Your task to perform on an android device: turn on javascript in the chrome app Image 0: 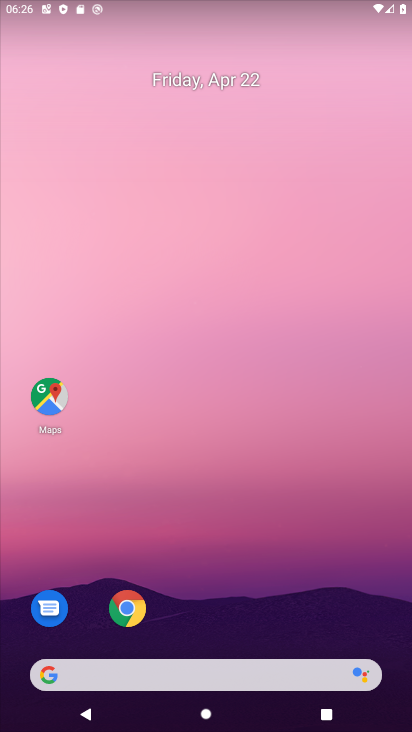
Step 0: click (135, 619)
Your task to perform on an android device: turn on javascript in the chrome app Image 1: 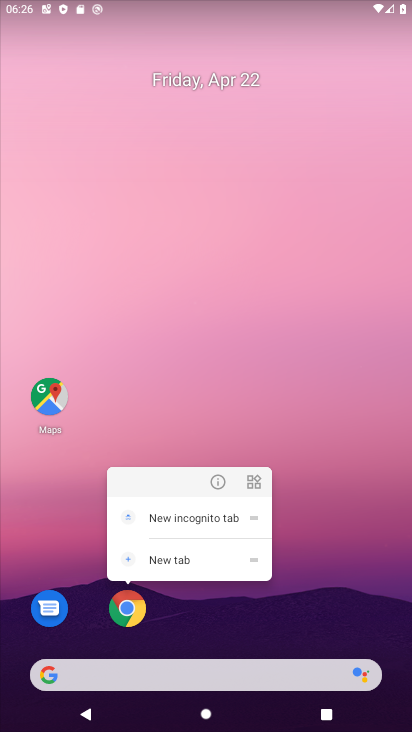
Step 1: click (125, 607)
Your task to perform on an android device: turn on javascript in the chrome app Image 2: 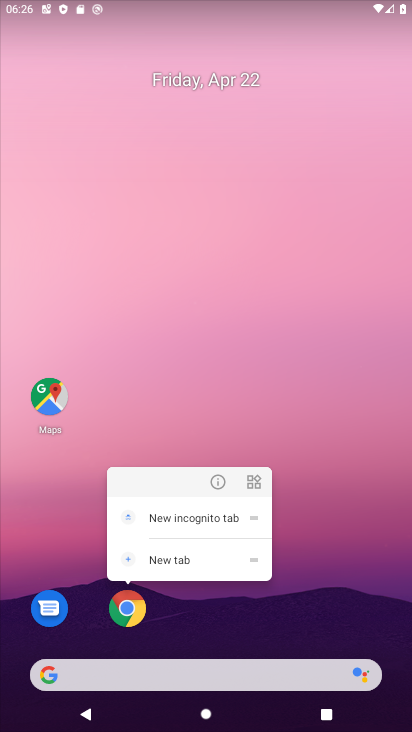
Step 2: click (125, 614)
Your task to perform on an android device: turn on javascript in the chrome app Image 3: 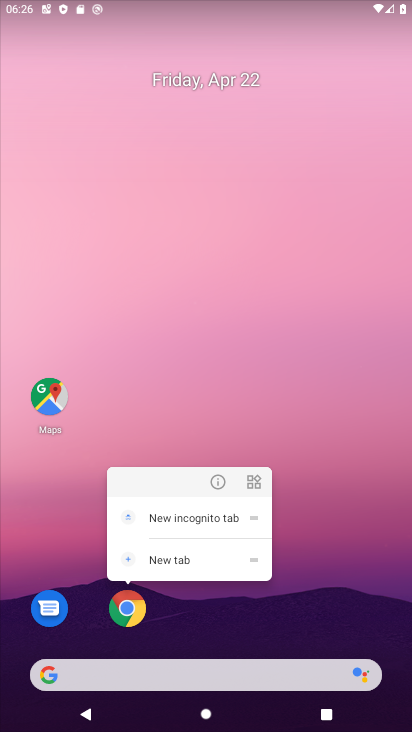
Step 3: click (135, 606)
Your task to perform on an android device: turn on javascript in the chrome app Image 4: 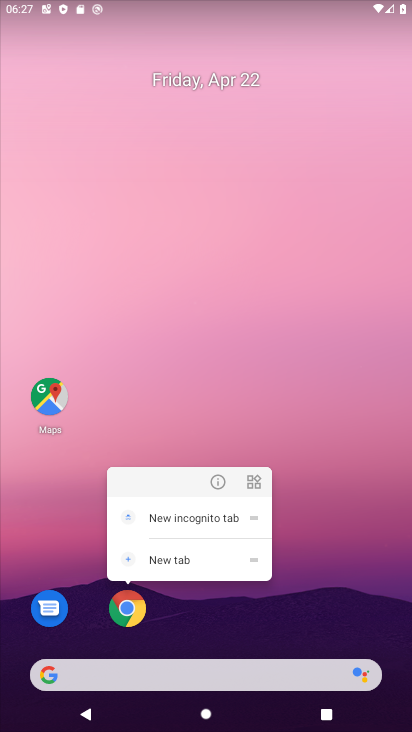
Step 4: click (126, 610)
Your task to perform on an android device: turn on javascript in the chrome app Image 5: 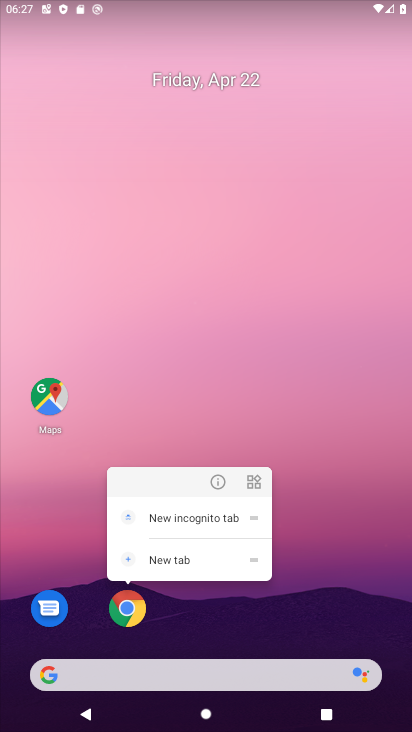
Step 5: click (126, 610)
Your task to perform on an android device: turn on javascript in the chrome app Image 6: 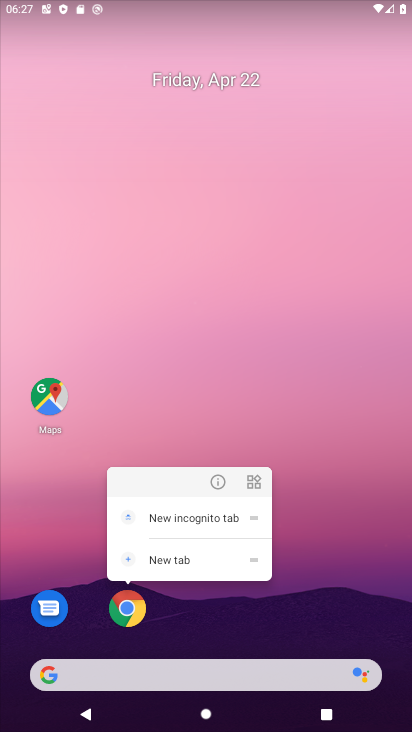
Step 6: click (126, 606)
Your task to perform on an android device: turn on javascript in the chrome app Image 7: 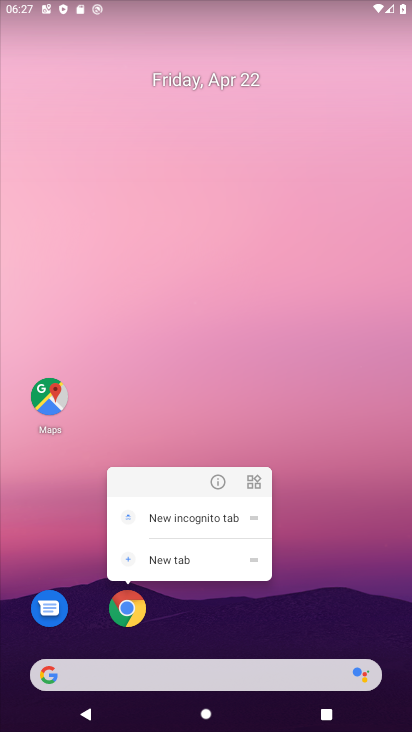
Step 7: click (129, 607)
Your task to perform on an android device: turn on javascript in the chrome app Image 8: 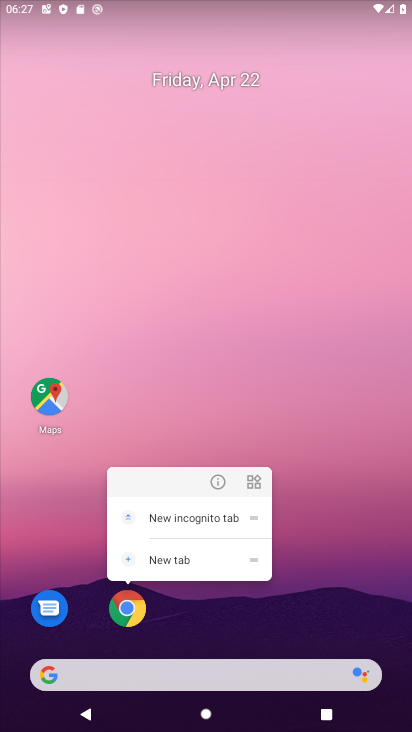
Step 8: click (127, 612)
Your task to perform on an android device: turn on javascript in the chrome app Image 9: 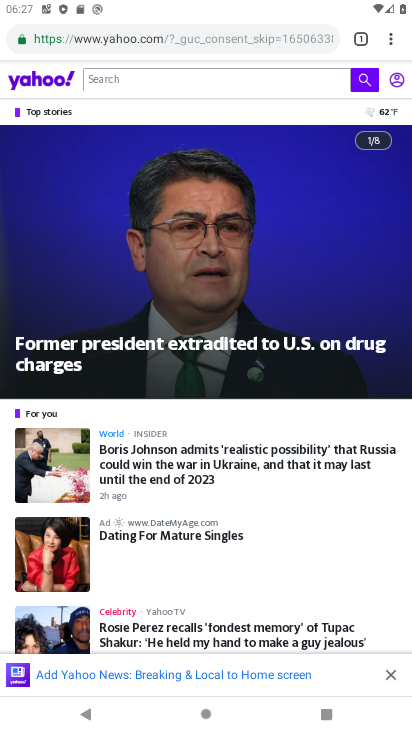
Step 9: click (390, 45)
Your task to perform on an android device: turn on javascript in the chrome app Image 10: 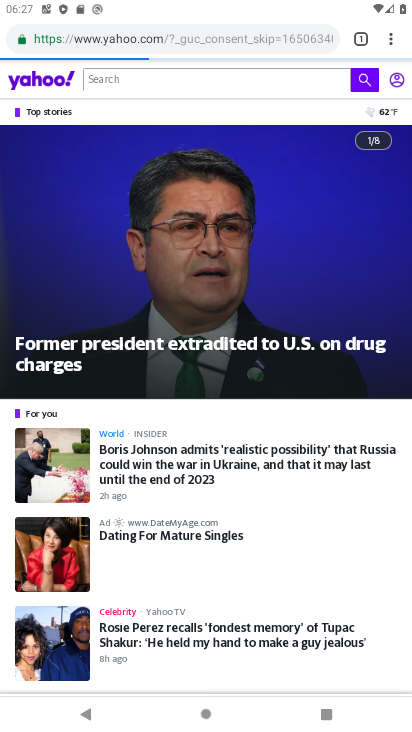
Step 10: click (390, 42)
Your task to perform on an android device: turn on javascript in the chrome app Image 11: 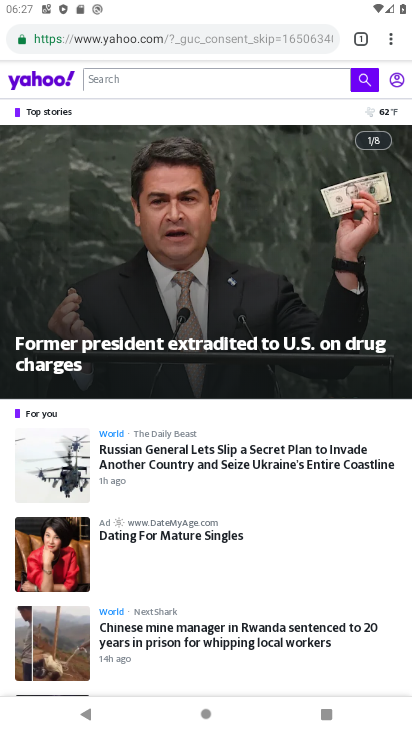
Step 11: click (390, 42)
Your task to perform on an android device: turn on javascript in the chrome app Image 12: 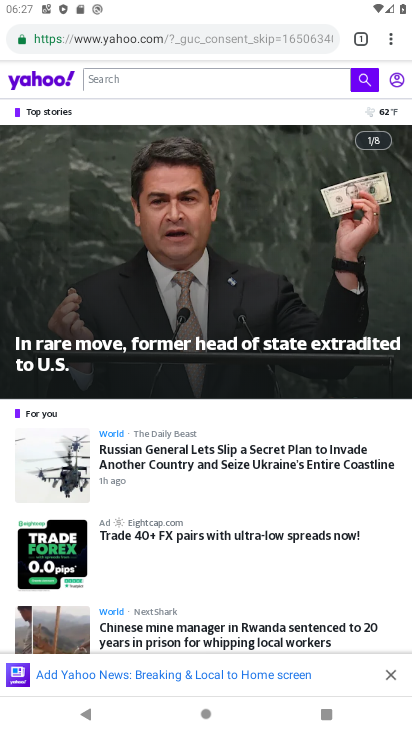
Step 12: click (390, 40)
Your task to perform on an android device: turn on javascript in the chrome app Image 13: 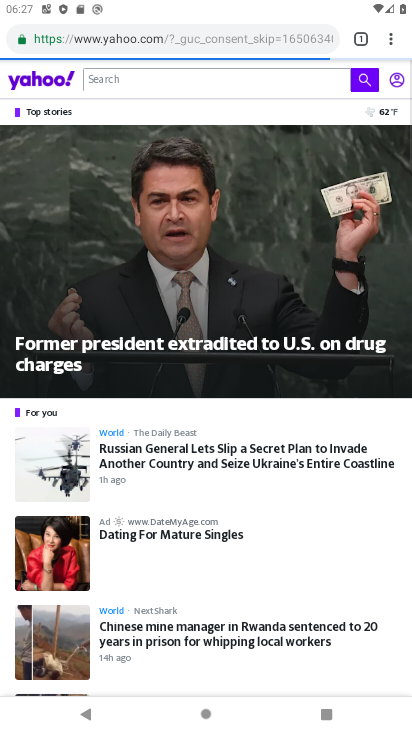
Step 13: click (393, 40)
Your task to perform on an android device: turn on javascript in the chrome app Image 14: 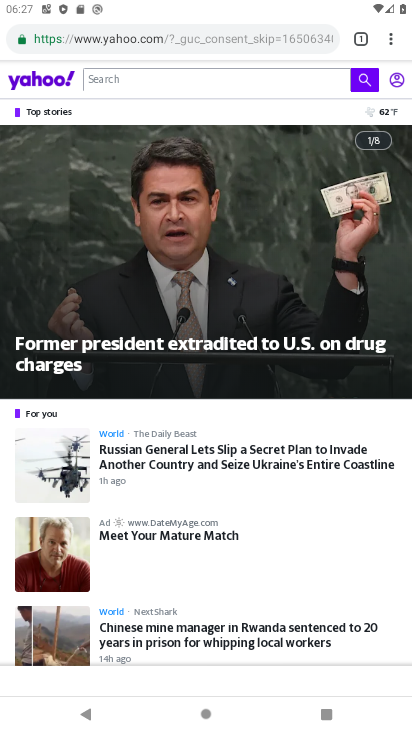
Step 14: click (390, 46)
Your task to perform on an android device: turn on javascript in the chrome app Image 15: 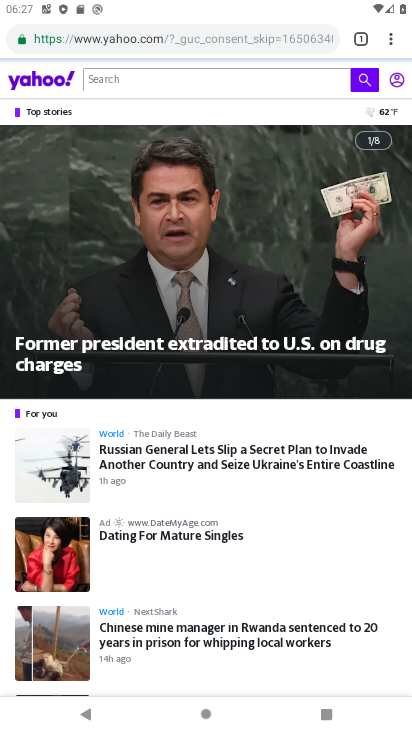
Step 15: click (395, 41)
Your task to perform on an android device: turn on javascript in the chrome app Image 16: 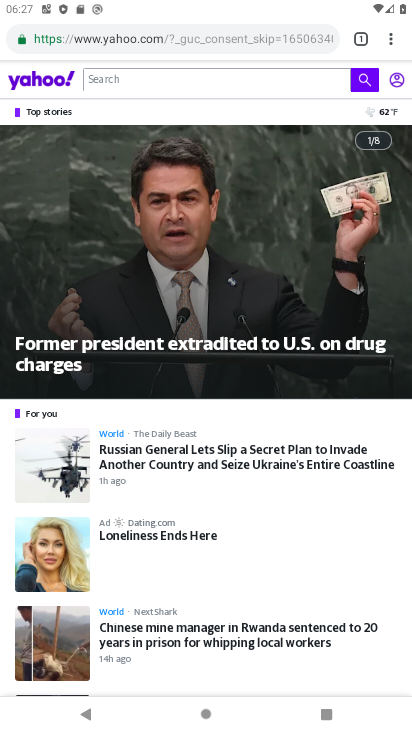
Step 16: click (391, 33)
Your task to perform on an android device: turn on javascript in the chrome app Image 17: 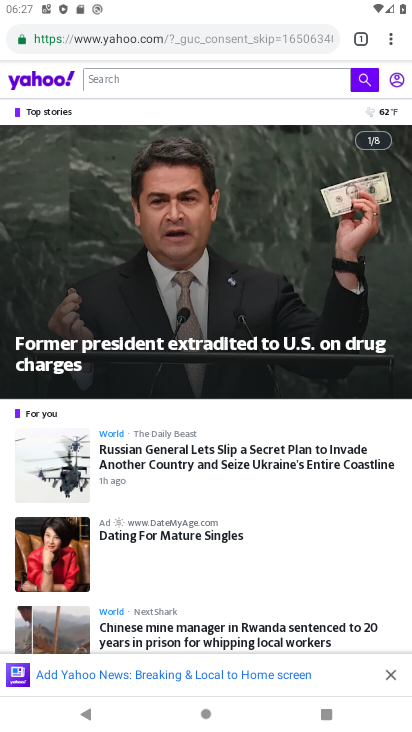
Step 17: click (391, 39)
Your task to perform on an android device: turn on javascript in the chrome app Image 18: 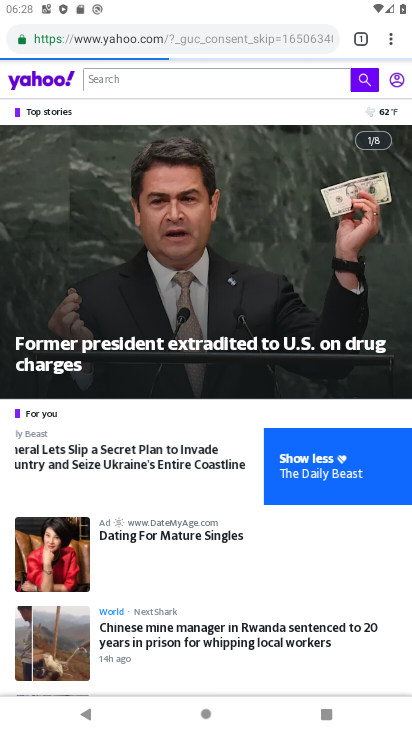
Step 18: click (391, 39)
Your task to perform on an android device: turn on javascript in the chrome app Image 19: 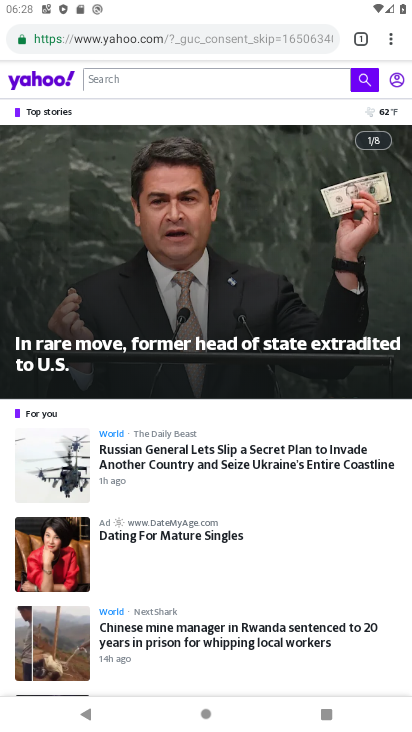
Step 19: click (393, 40)
Your task to perform on an android device: turn on javascript in the chrome app Image 20: 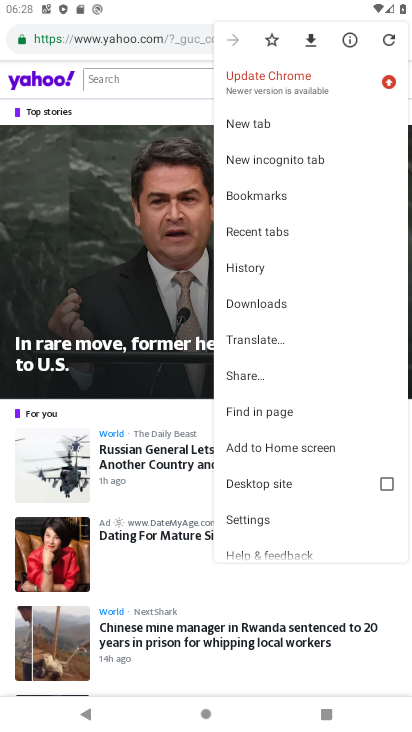
Step 20: click (242, 520)
Your task to perform on an android device: turn on javascript in the chrome app Image 21: 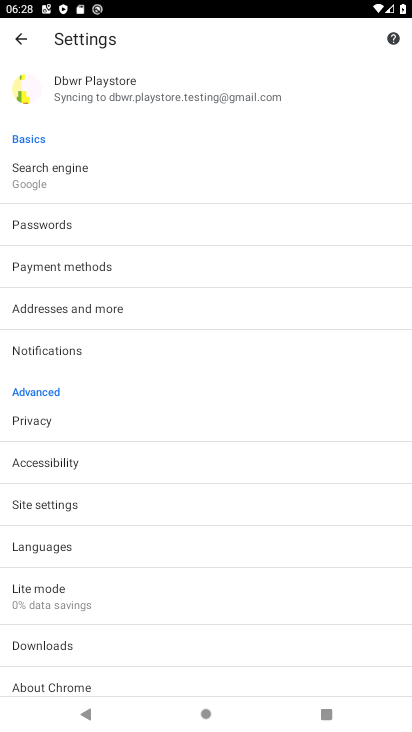
Step 21: click (38, 505)
Your task to perform on an android device: turn on javascript in the chrome app Image 22: 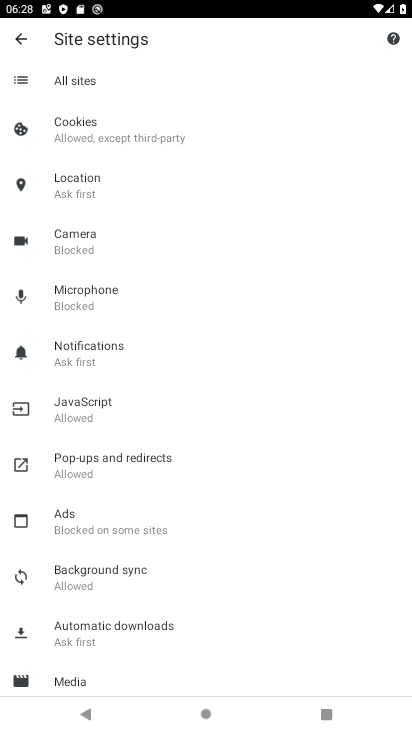
Step 22: drag from (156, 592) to (211, 416)
Your task to perform on an android device: turn on javascript in the chrome app Image 23: 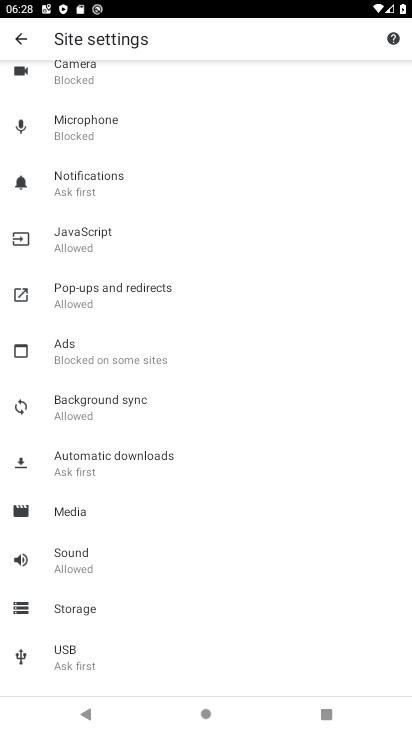
Step 23: click (70, 235)
Your task to perform on an android device: turn on javascript in the chrome app Image 24: 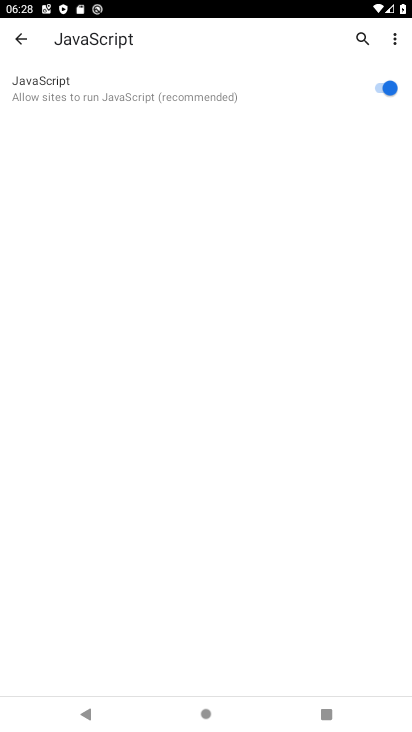
Step 24: task complete